Your task to perform on an android device: Show me recent news Image 0: 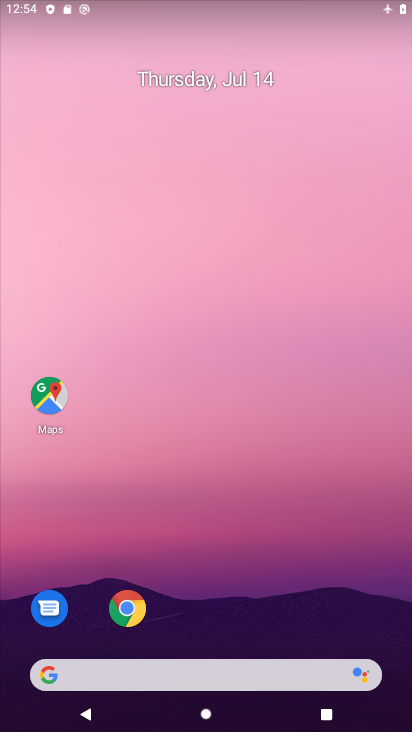
Step 0: drag from (5, 298) to (349, 336)
Your task to perform on an android device: Show me recent news Image 1: 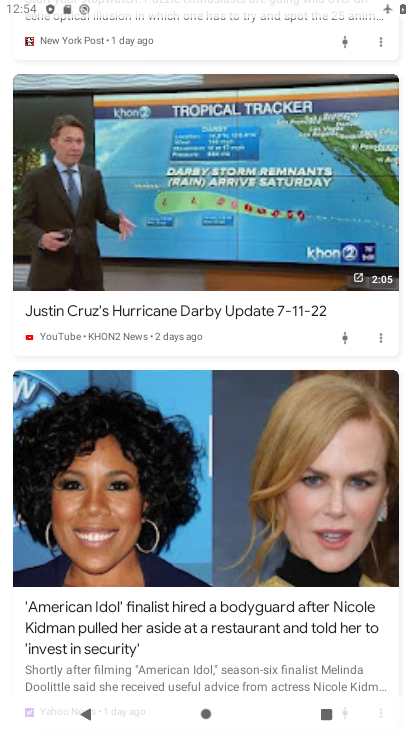
Step 1: task complete